Your task to perform on an android device: check storage Image 0: 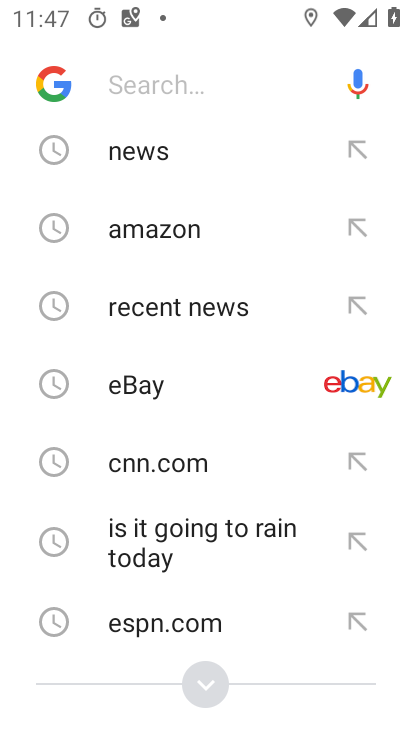
Step 0: drag from (344, 570) to (324, 219)
Your task to perform on an android device: check storage Image 1: 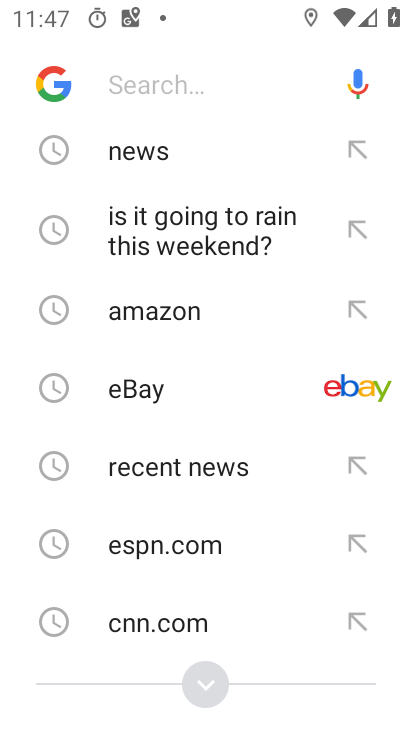
Step 1: press home button
Your task to perform on an android device: check storage Image 2: 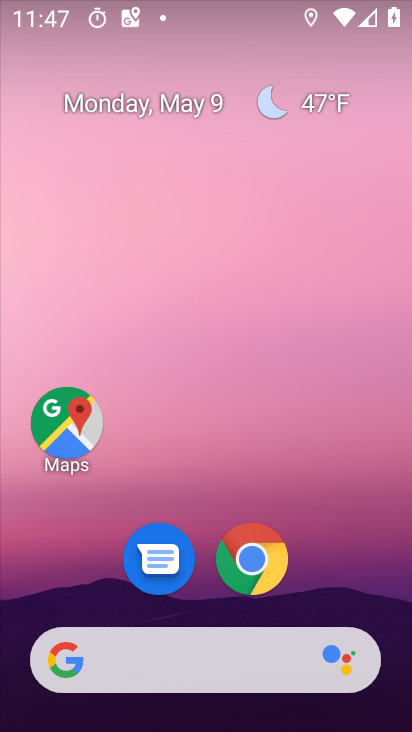
Step 2: drag from (332, 557) to (336, 0)
Your task to perform on an android device: check storage Image 3: 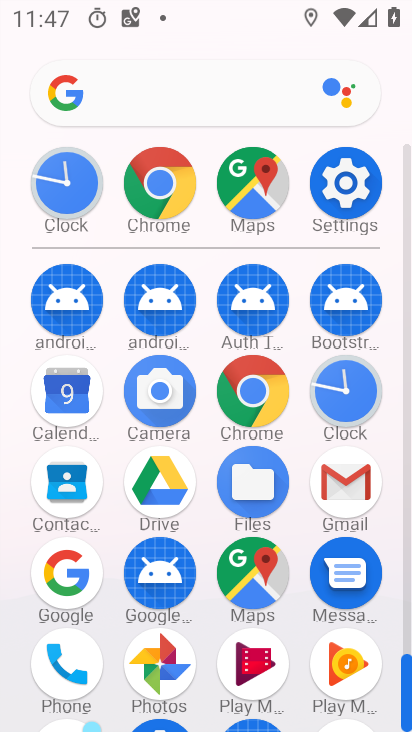
Step 3: click (336, 147)
Your task to perform on an android device: check storage Image 4: 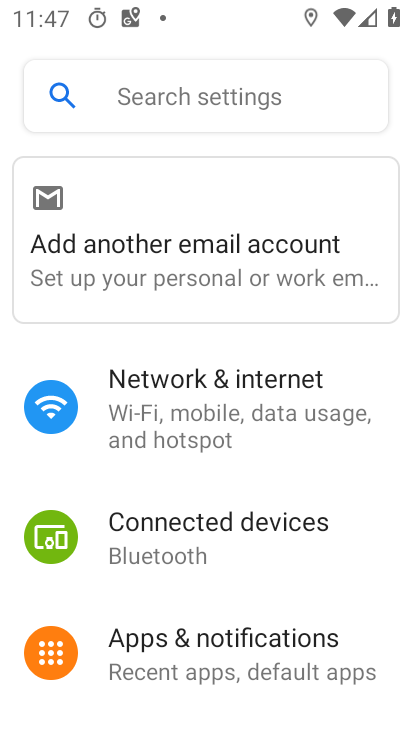
Step 4: drag from (171, 597) to (168, 98)
Your task to perform on an android device: check storage Image 5: 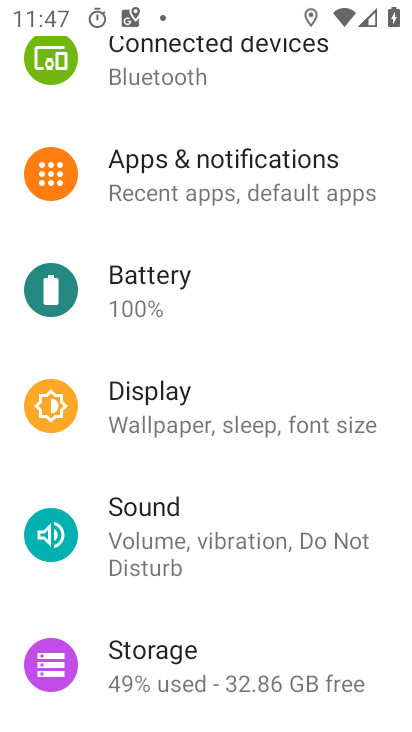
Step 5: click (157, 662)
Your task to perform on an android device: check storage Image 6: 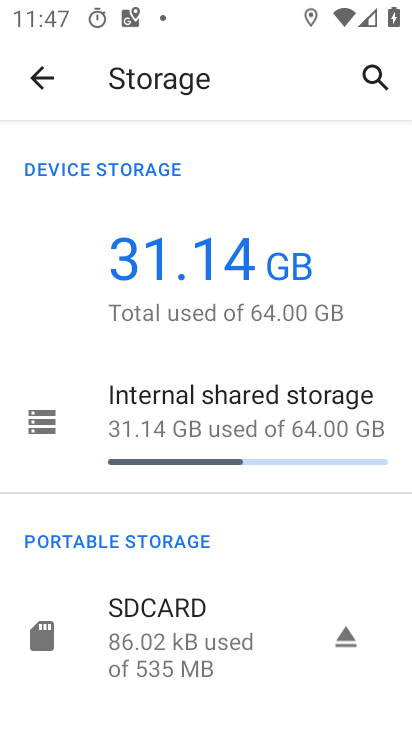
Step 6: task complete